Your task to perform on an android device: visit the assistant section in the google photos Image 0: 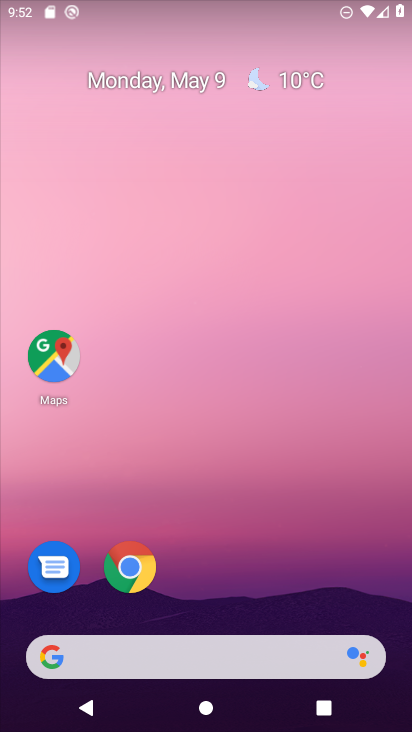
Step 0: drag from (254, 537) to (203, 23)
Your task to perform on an android device: visit the assistant section in the google photos Image 1: 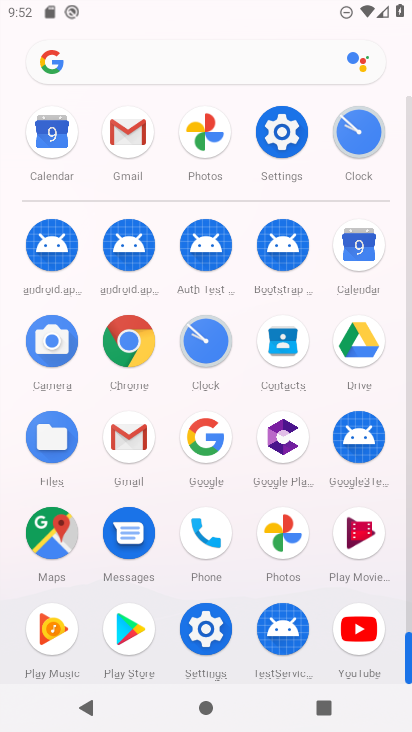
Step 1: click (204, 124)
Your task to perform on an android device: visit the assistant section in the google photos Image 2: 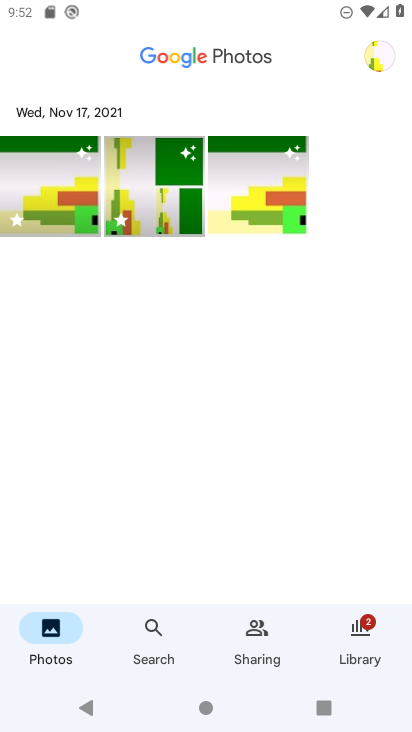
Step 2: task complete